Your task to perform on an android device: set the timer Image 0: 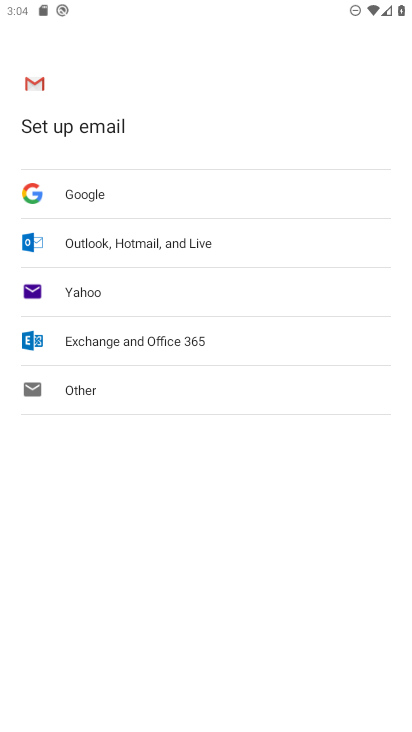
Step 0: press home button
Your task to perform on an android device: set the timer Image 1: 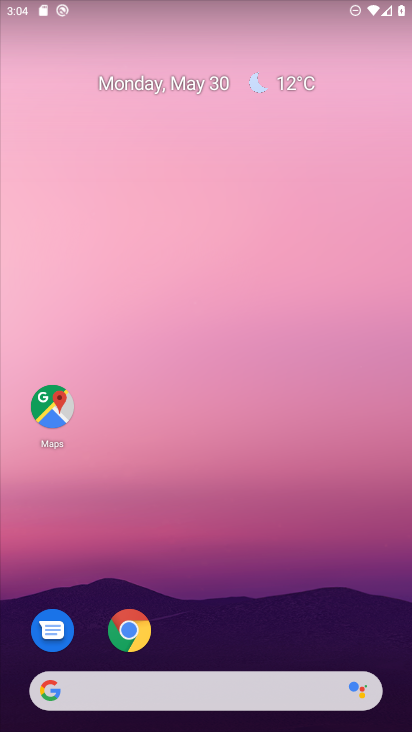
Step 1: drag from (161, 705) to (256, 6)
Your task to perform on an android device: set the timer Image 2: 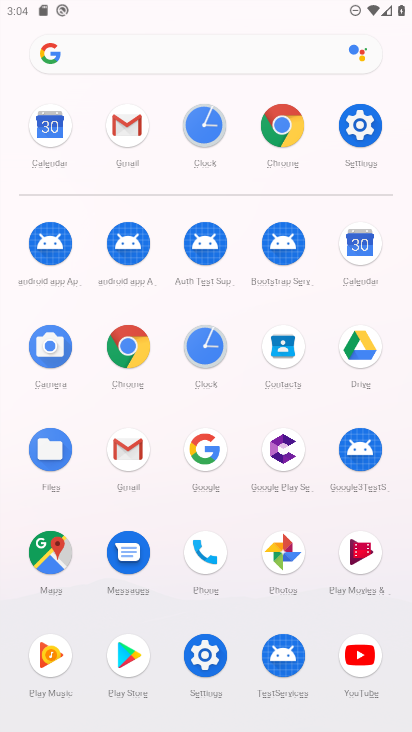
Step 2: click (200, 362)
Your task to perform on an android device: set the timer Image 3: 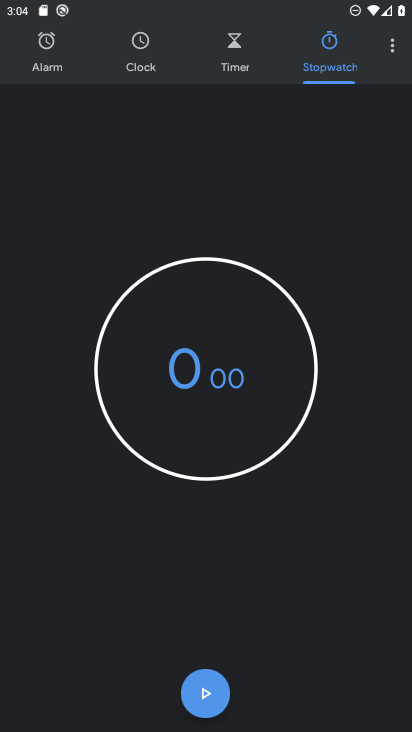
Step 3: click (229, 55)
Your task to perform on an android device: set the timer Image 4: 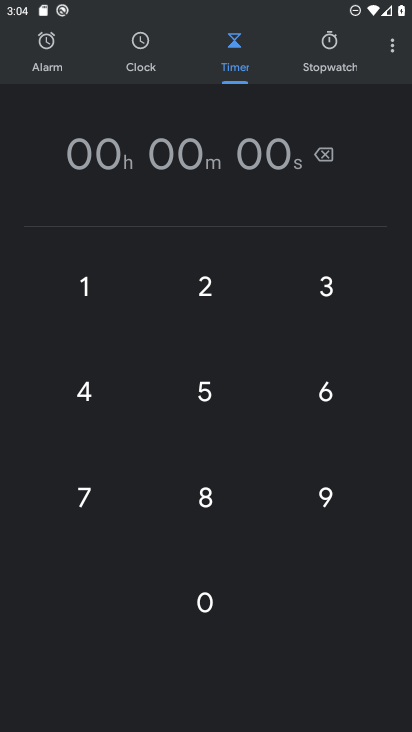
Step 4: click (202, 307)
Your task to perform on an android device: set the timer Image 5: 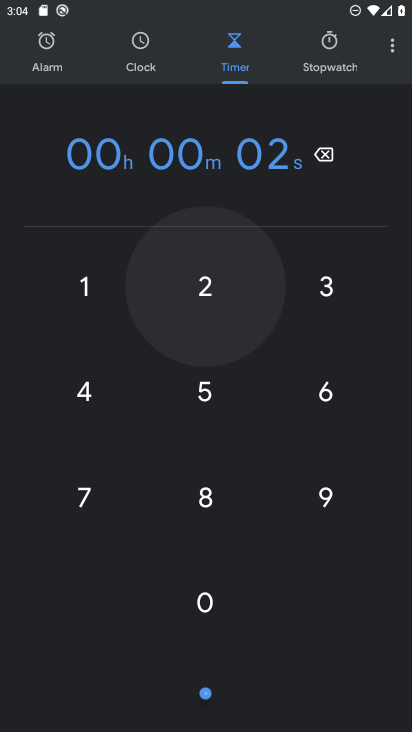
Step 5: click (202, 392)
Your task to perform on an android device: set the timer Image 6: 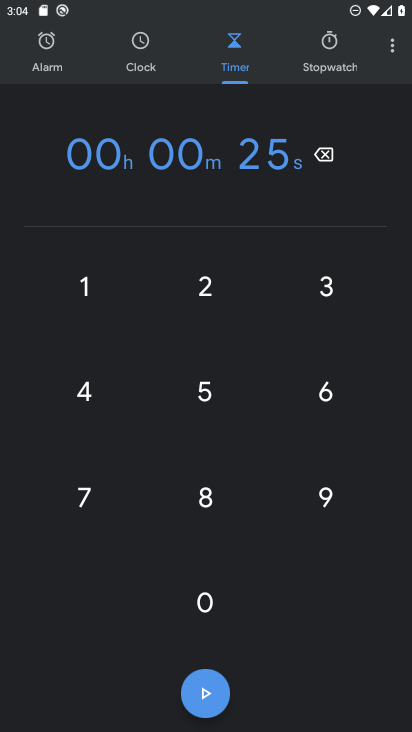
Step 6: click (318, 462)
Your task to perform on an android device: set the timer Image 7: 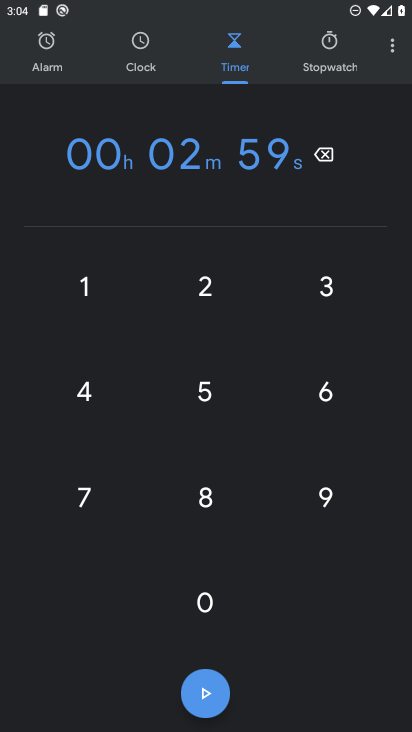
Step 7: click (205, 686)
Your task to perform on an android device: set the timer Image 8: 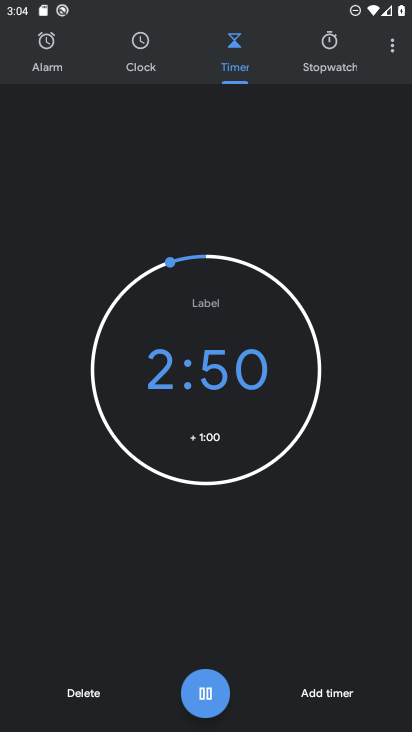
Step 8: task complete